Your task to perform on an android device: open app "Pluto TV - Live TV and Movies" Image 0: 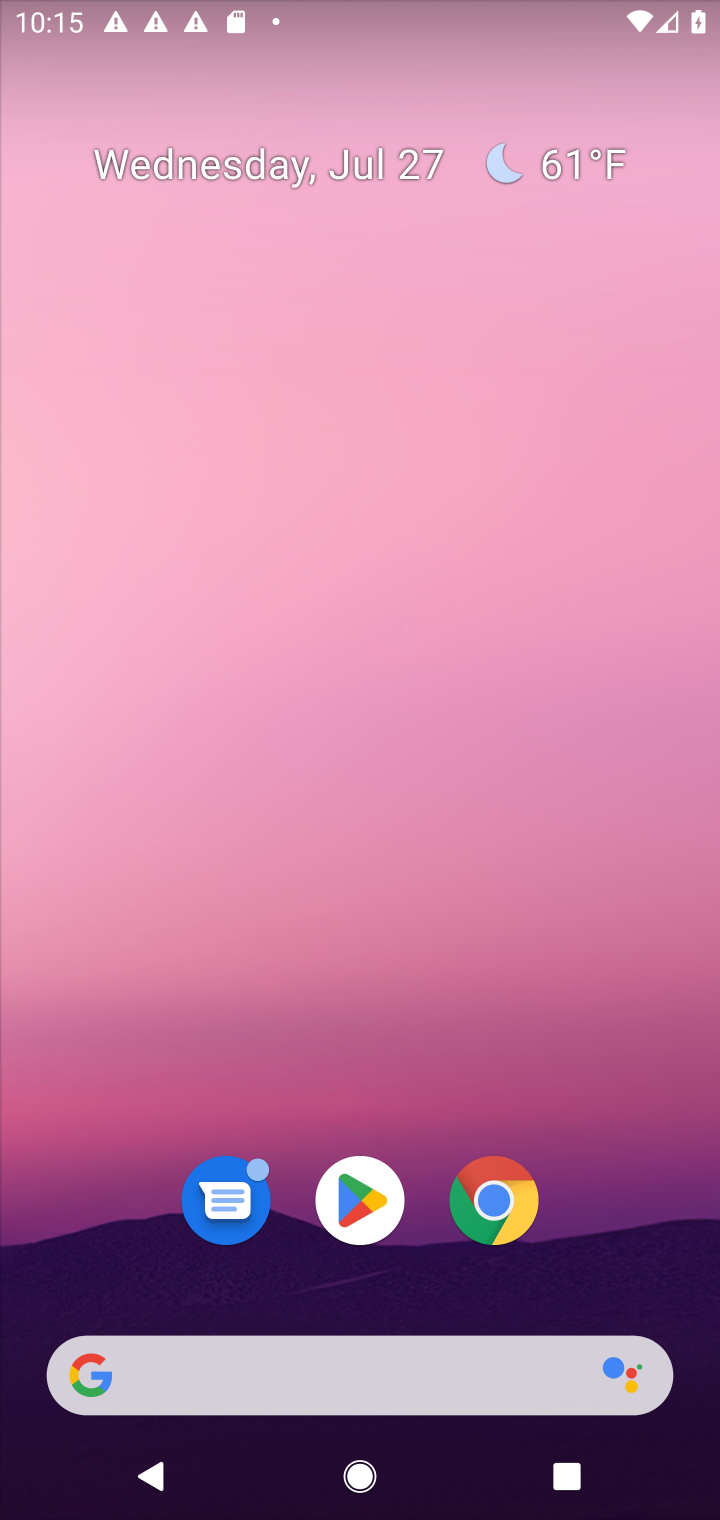
Step 0: click (359, 1193)
Your task to perform on an android device: open app "Pluto TV - Live TV and Movies" Image 1: 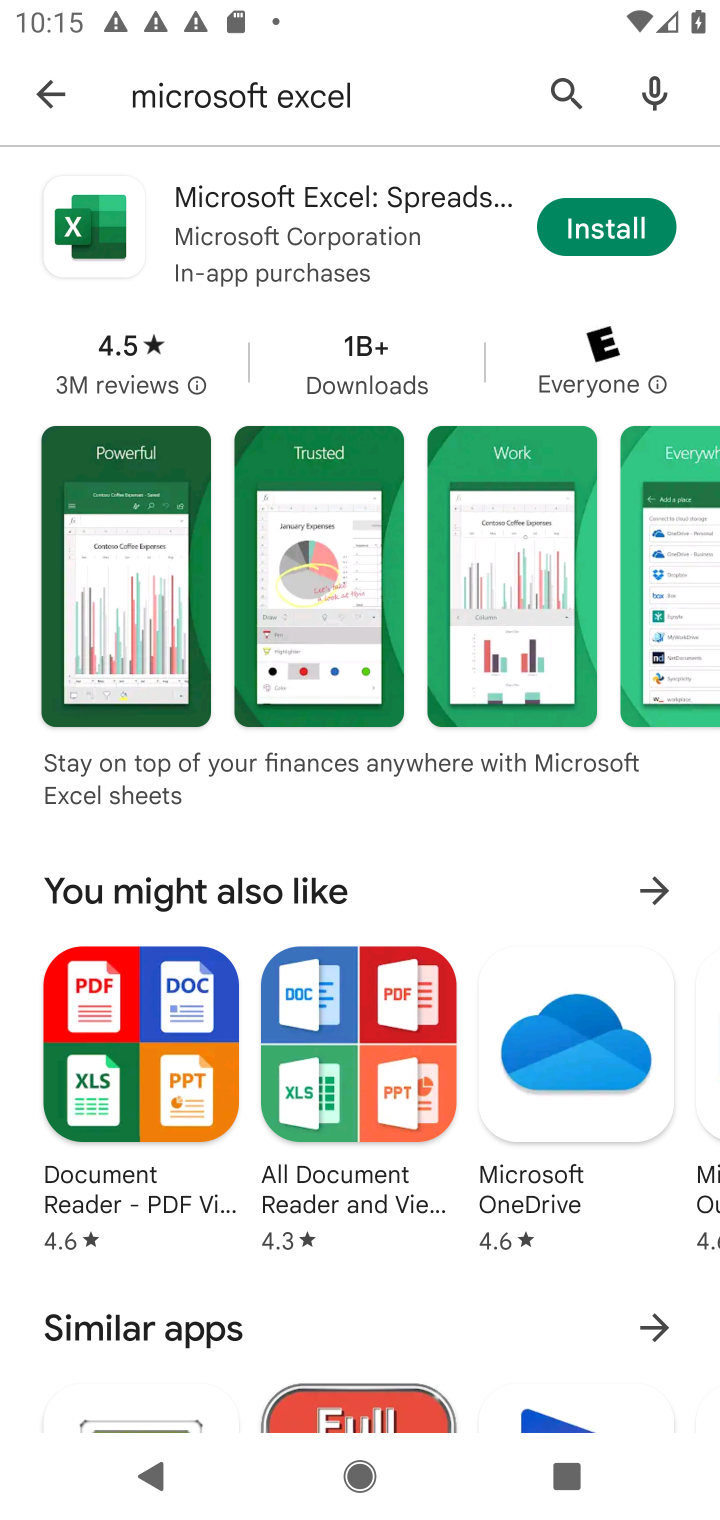
Step 1: click (38, 91)
Your task to perform on an android device: open app "Pluto TV - Live TV and Movies" Image 2: 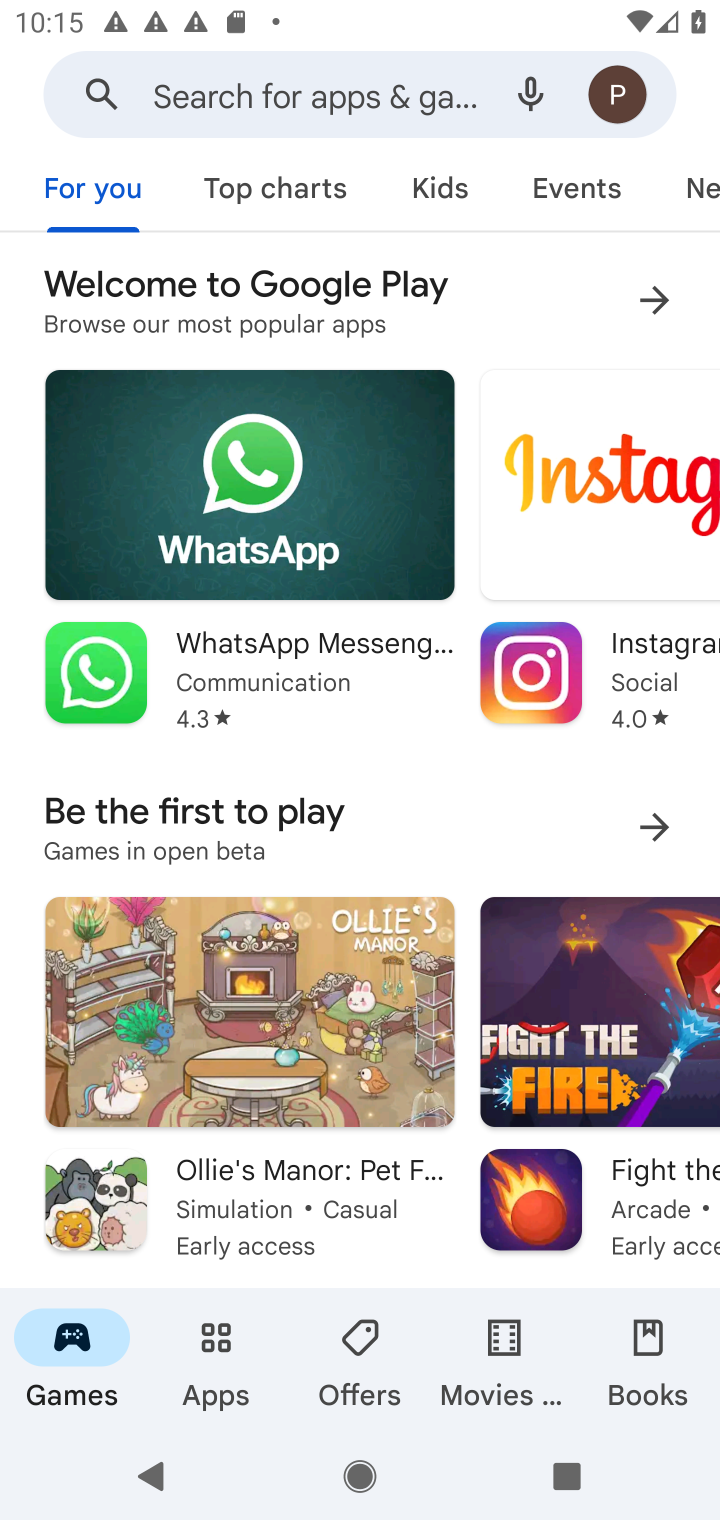
Step 2: click (289, 84)
Your task to perform on an android device: open app "Pluto TV - Live TV and Movies" Image 3: 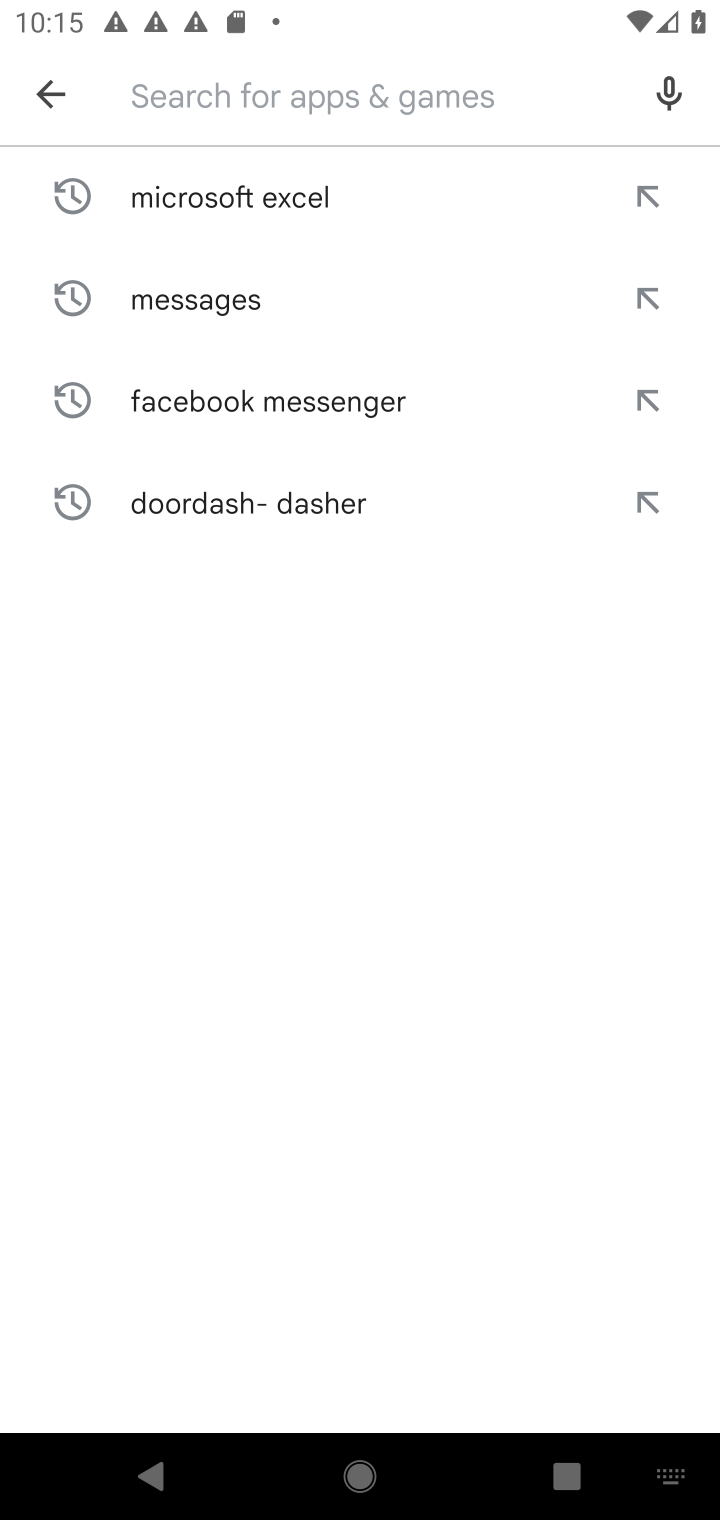
Step 3: type "Pluto TV - Live TV and Movies"
Your task to perform on an android device: open app "Pluto TV - Live TV and Movies" Image 4: 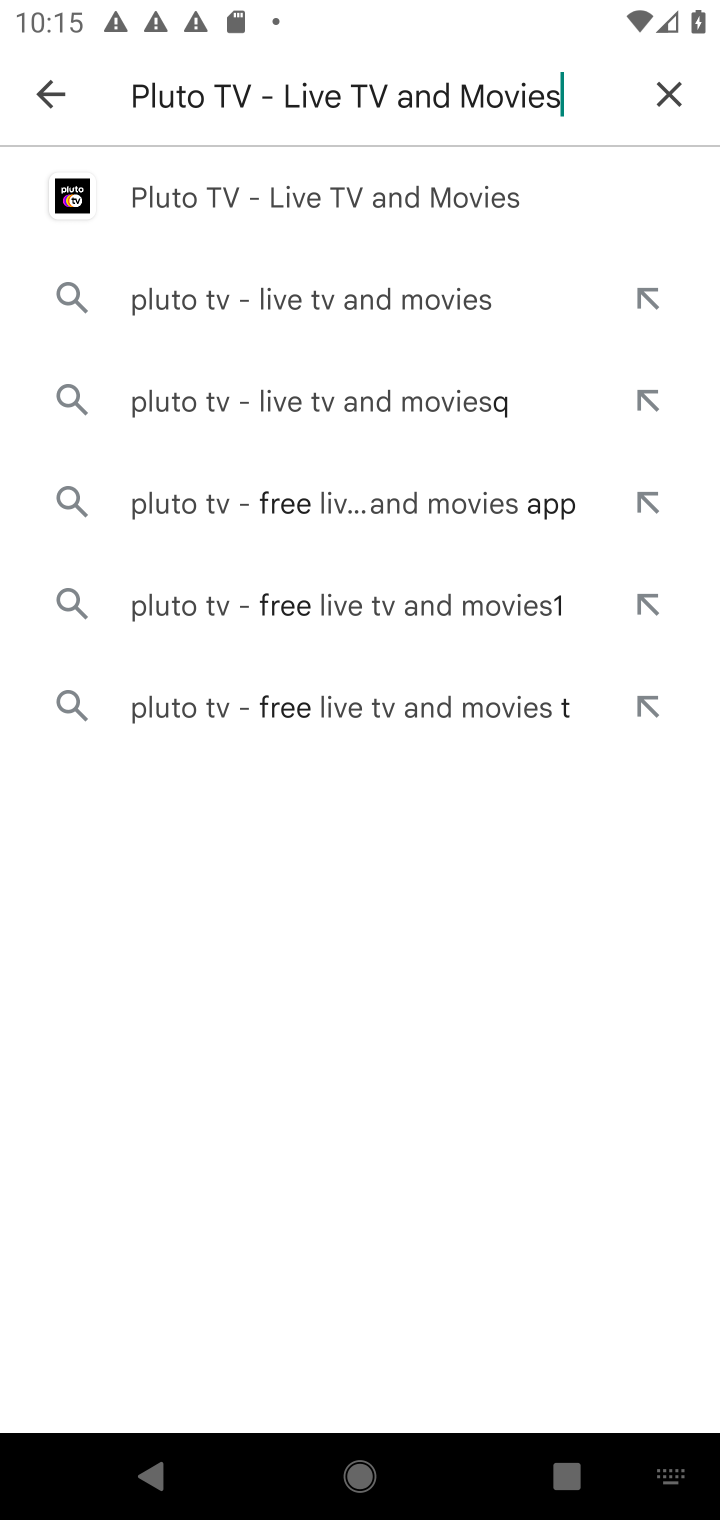
Step 4: click (365, 188)
Your task to perform on an android device: open app "Pluto TV - Live TV and Movies" Image 5: 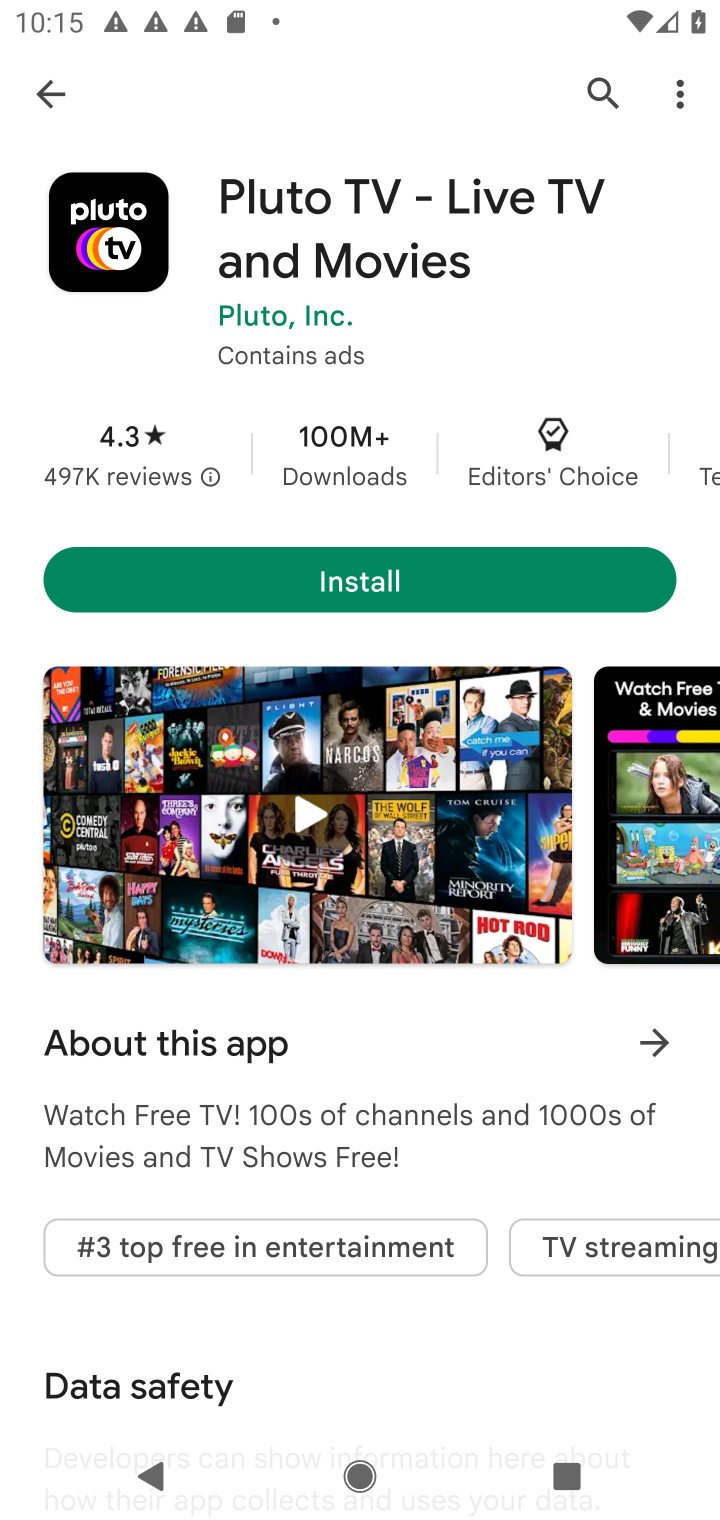
Step 5: task complete